Your task to perform on an android device: turn on the 24-hour format for clock Image 0: 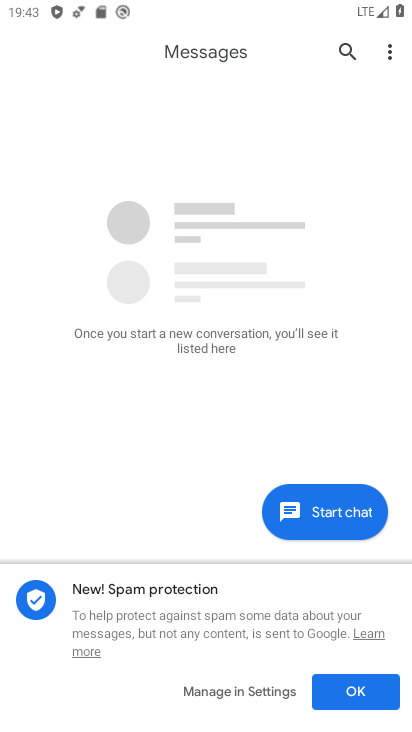
Step 0: press home button
Your task to perform on an android device: turn on the 24-hour format for clock Image 1: 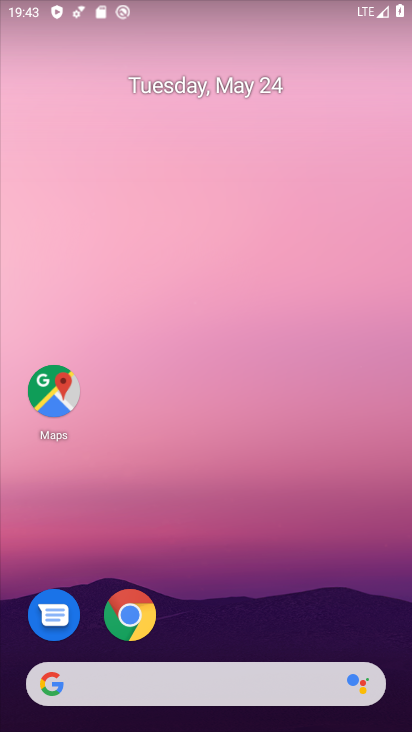
Step 1: drag from (250, 625) to (293, 263)
Your task to perform on an android device: turn on the 24-hour format for clock Image 2: 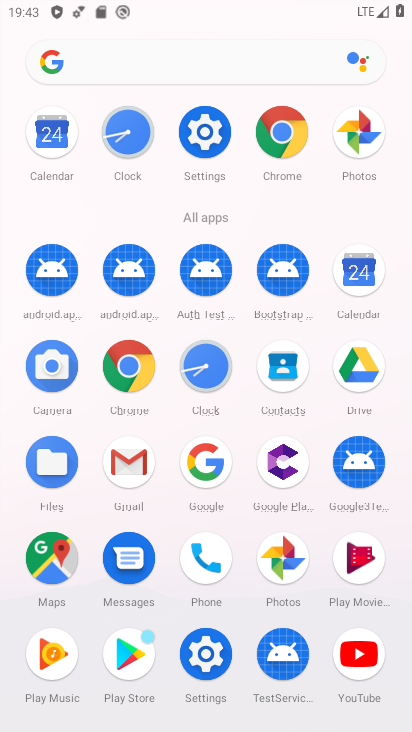
Step 2: click (195, 364)
Your task to perform on an android device: turn on the 24-hour format for clock Image 3: 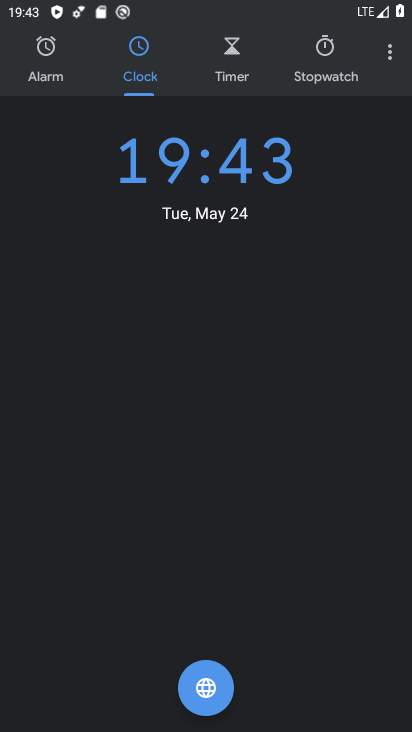
Step 3: click (385, 58)
Your task to perform on an android device: turn on the 24-hour format for clock Image 4: 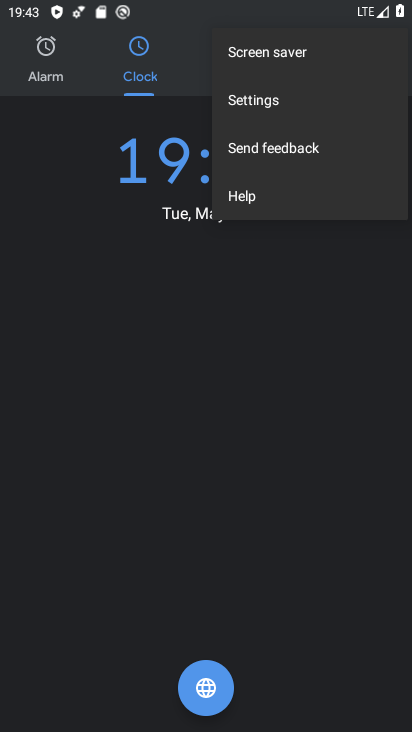
Step 4: click (259, 108)
Your task to perform on an android device: turn on the 24-hour format for clock Image 5: 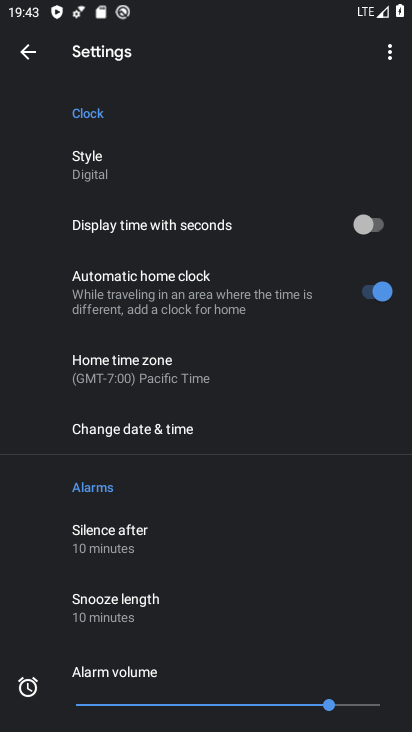
Step 5: drag from (233, 545) to (262, 409)
Your task to perform on an android device: turn on the 24-hour format for clock Image 6: 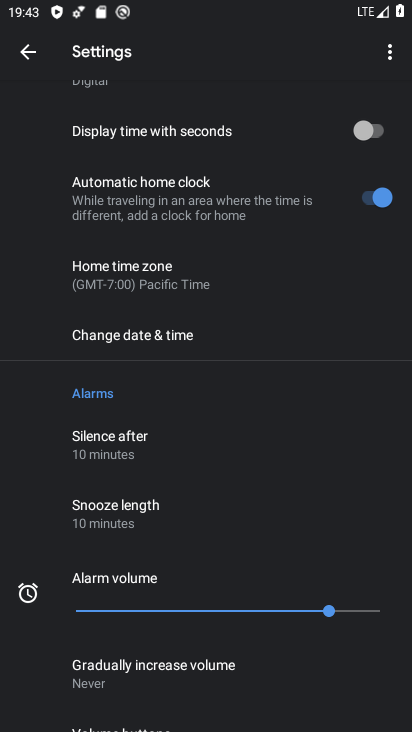
Step 6: click (176, 335)
Your task to perform on an android device: turn on the 24-hour format for clock Image 7: 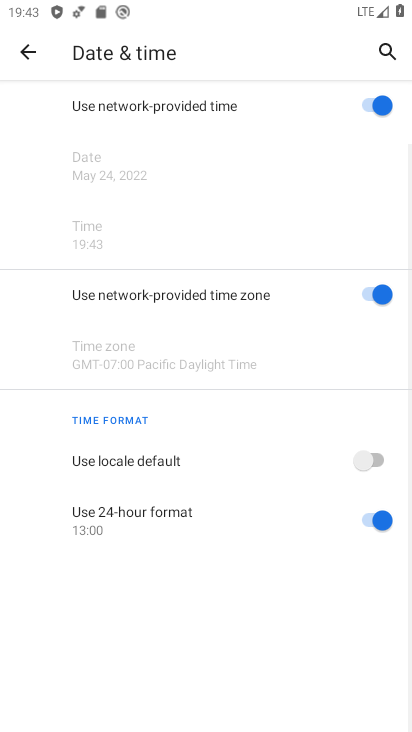
Step 7: click (375, 468)
Your task to perform on an android device: turn on the 24-hour format for clock Image 8: 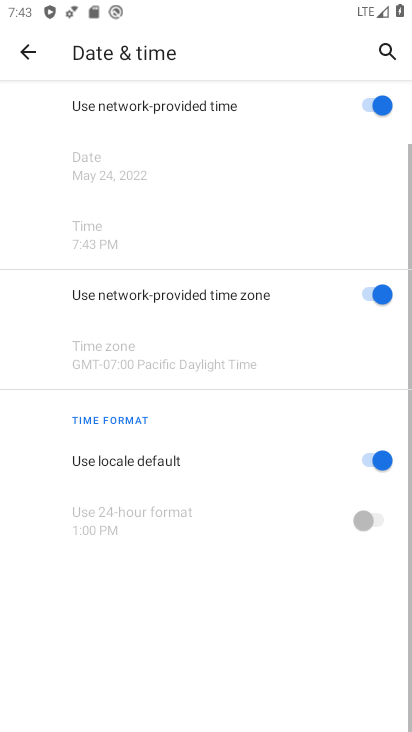
Step 8: click (371, 514)
Your task to perform on an android device: turn on the 24-hour format for clock Image 9: 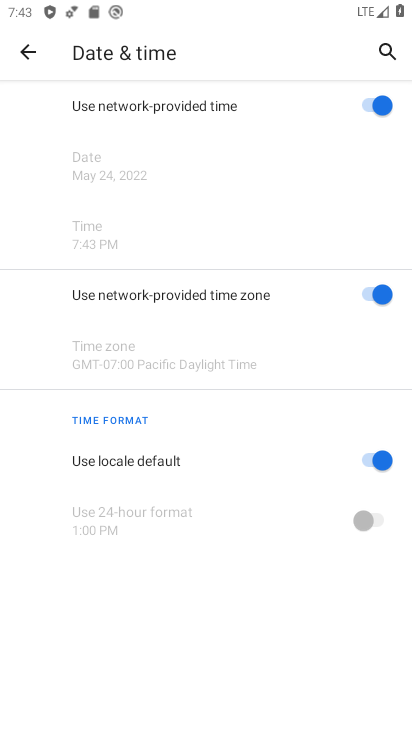
Step 9: click (370, 509)
Your task to perform on an android device: turn on the 24-hour format for clock Image 10: 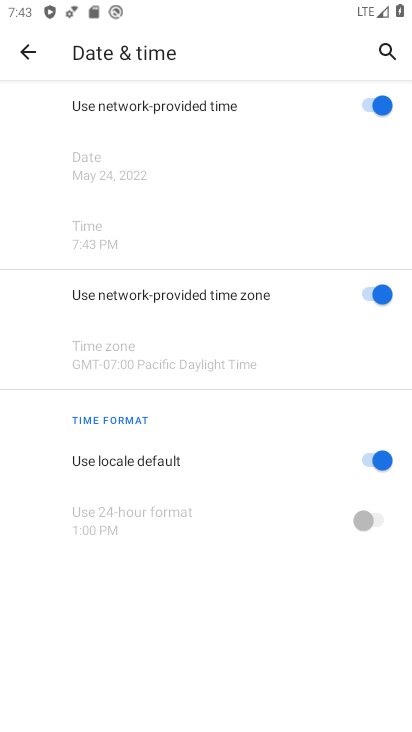
Step 10: click (372, 517)
Your task to perform on an android device: turn on the 24-hour format for clock Image 11: 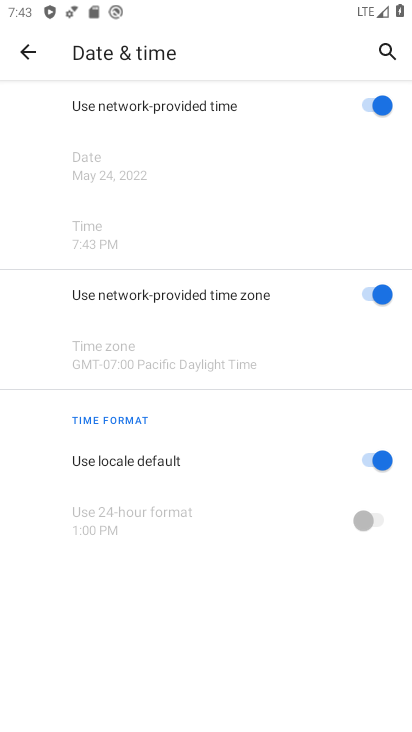
Step 11: click (368, 449)
Your task to perform on an android device: turn on the 24-hour format for clock Image 12: 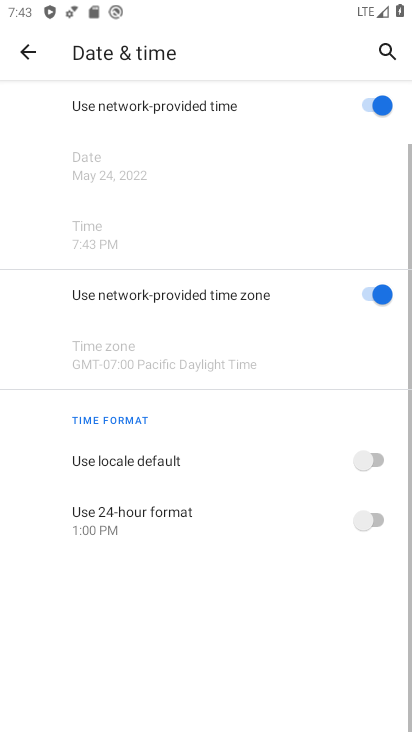
Step 12: click (387, 517)
Your task to perform on an android device: turn on the 24-hour format for clock Image 13: 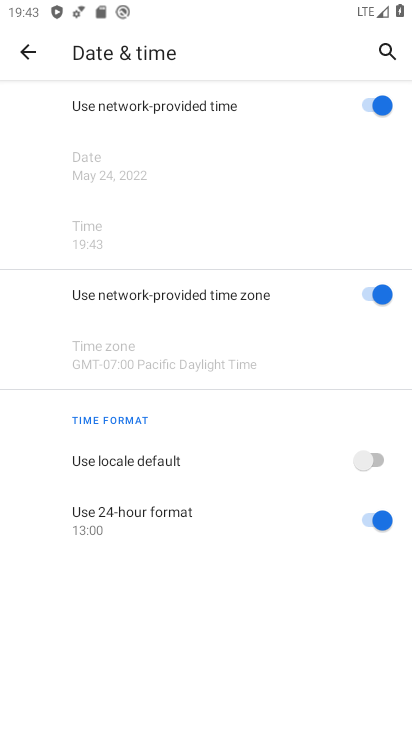
Step 13: task complete